Your task to perform on an android device: star an email in the gmail app Image 0: 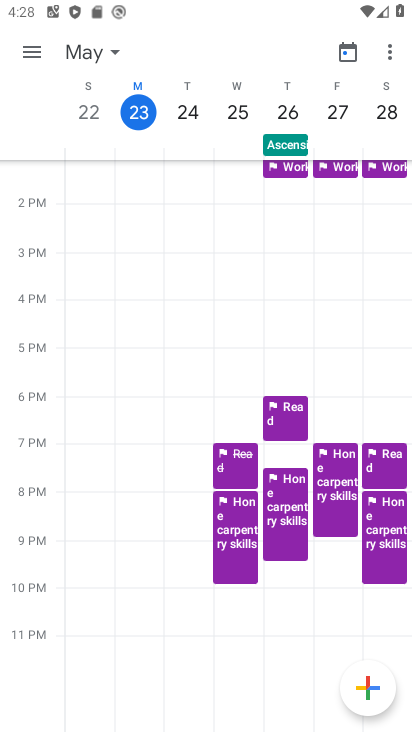
Step 0: press home button
Your task to perform on an android device: star an email in the gmail app Image 1: 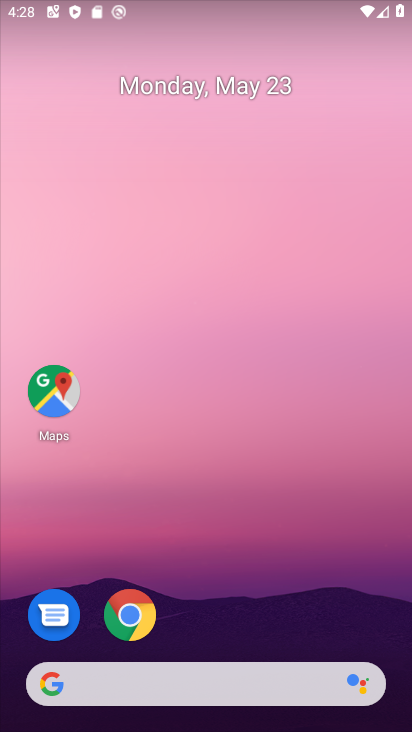
Step 1: drag from (202, 584) to (246, 87)
Your task to perform on an android device: star an email in the gmail app Image 2: 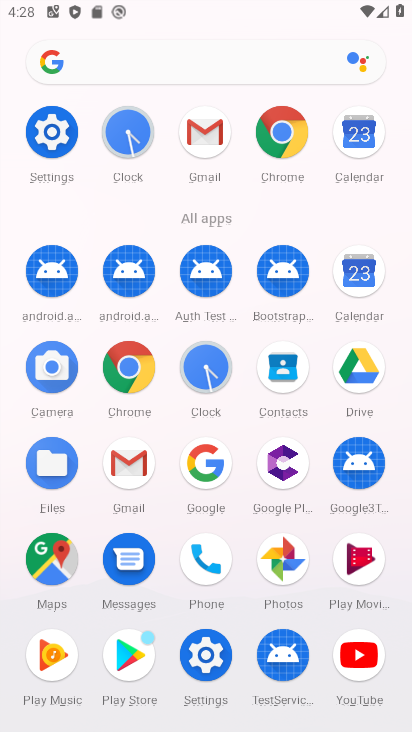
Step 2: click (205, 133)
Your task to perform on an android device: star an email in the gmail app Image 3: 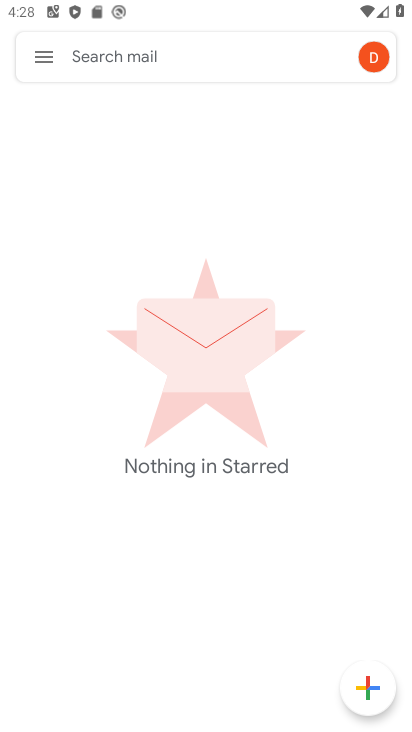
Step 3: click (40, 43)
Your task to perform on an android device: star an email in the gmail app Image 4: 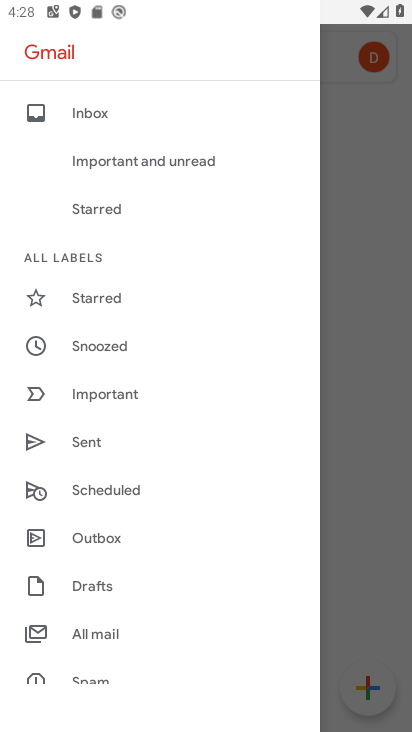
Step 4: click (108, 626)
Your task to perform on an android device: star an email in the gmail app Image 5: 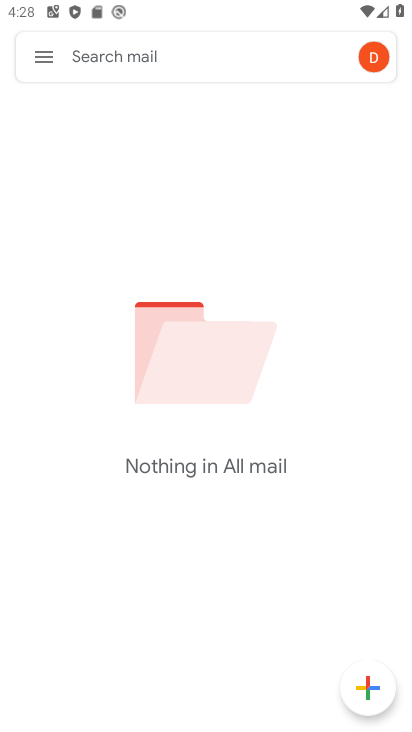
Step 5: task complete